Your task to perform on an android device: Open Google Maps and go to "Timeline" Image 0: 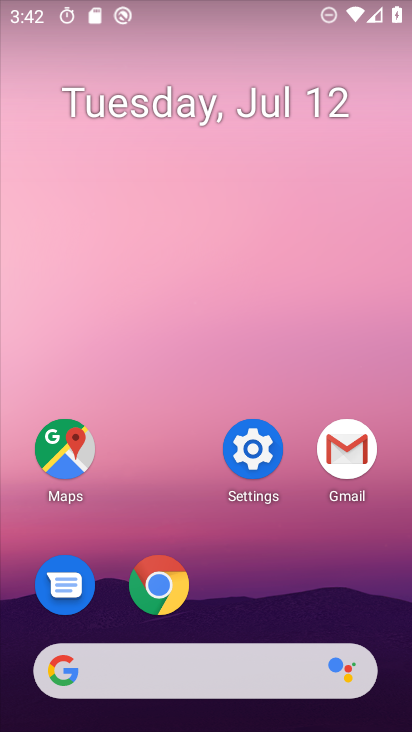
Step 0: drag from (389, 620) to (304, 191)
Your task to perform on an android device: Open Google Maps and go to "Timeline" Image 1: 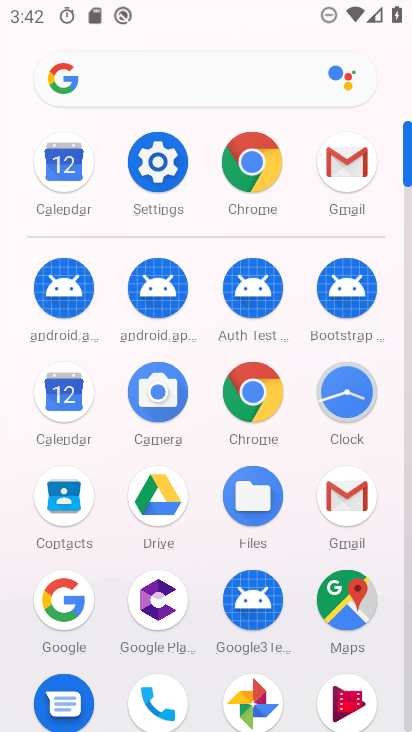
Step 1: drag from (300, 606) to (273, 265)
Your task to perform on an android device: Open Google Maps and go to "Timeline" Image 2: 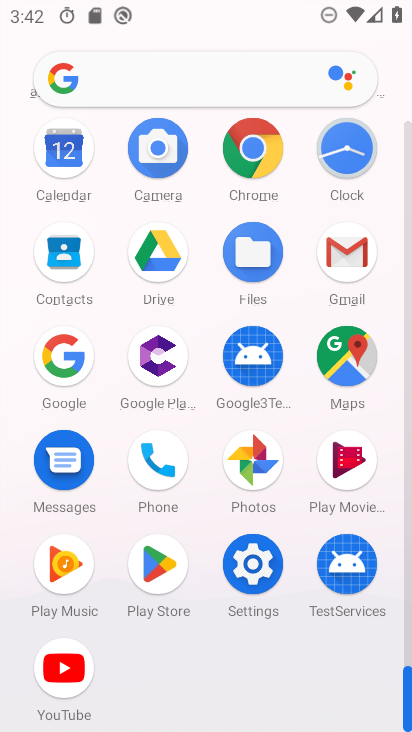
Step 2: click (331, 366)
Your task to perform on an android device: Open Google Maps and go to "Timeline" Image 3: 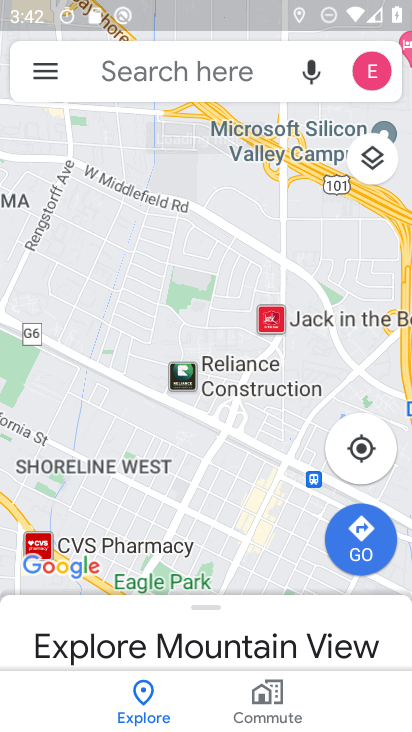
Step 3: click (43, 75)
Your task to perform on an android device: Open Google Maps and go to "Timeline" Image 4: 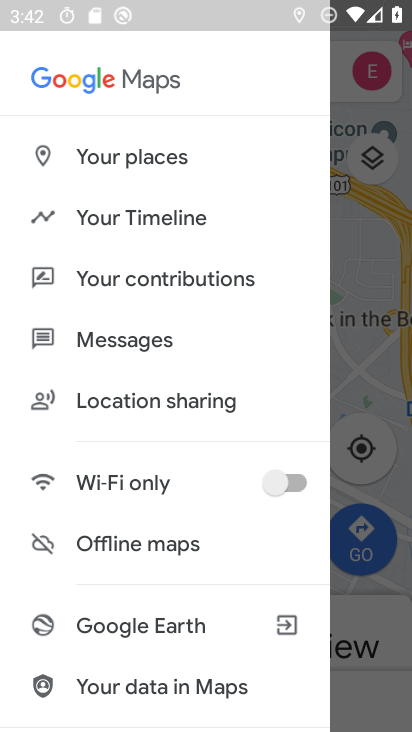
Step 4: click (116, 218)
Your task to perform on an android device: Open Google Maps and go to "Timeline" Image 5: 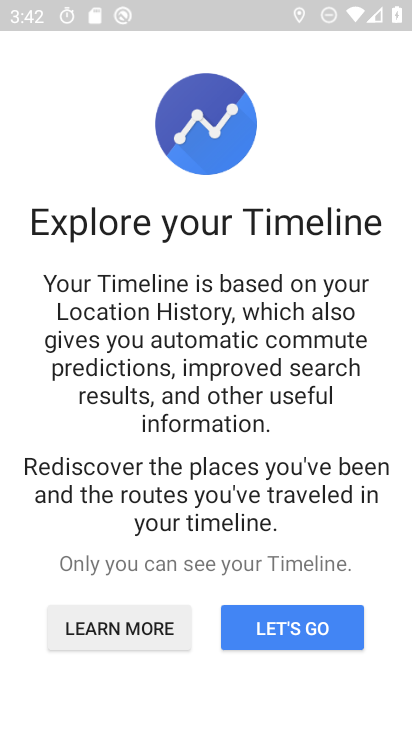
Step 5: click (278, 615)
Your task to perform on an android device: Open Google Maps and go to "Timeline" Image 6: 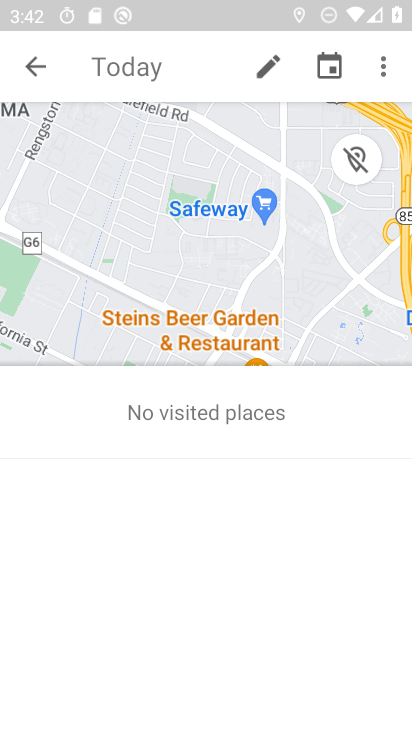
Step 6: task complete